Your task to perform on an android device: Search for Mexican restaurants on Maps Image 0: 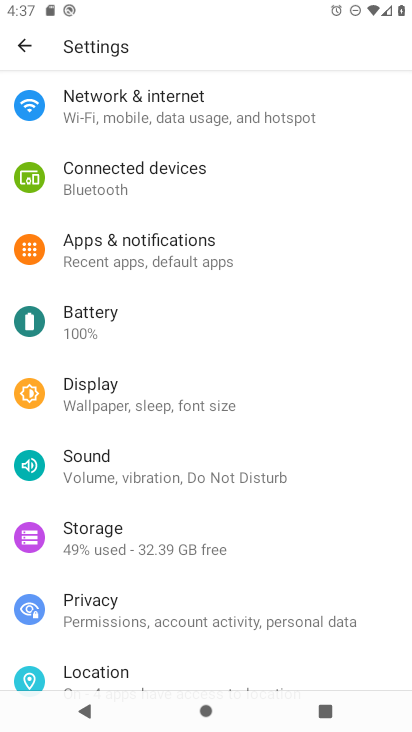
Step 0: press home button
Your task to perform on an android device: Search for Mexican restaurants on Maps Image 1: 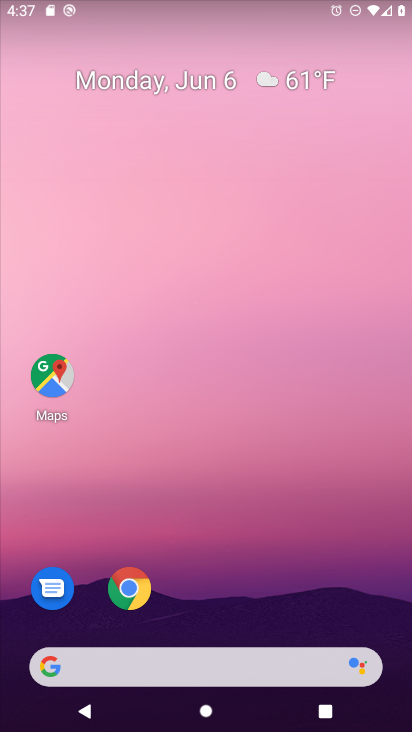
Step 1: drag from (204, 499) to (168, 188)
Your task to perform on an android device: Search for Mexican restaurants on Maps Image 2: 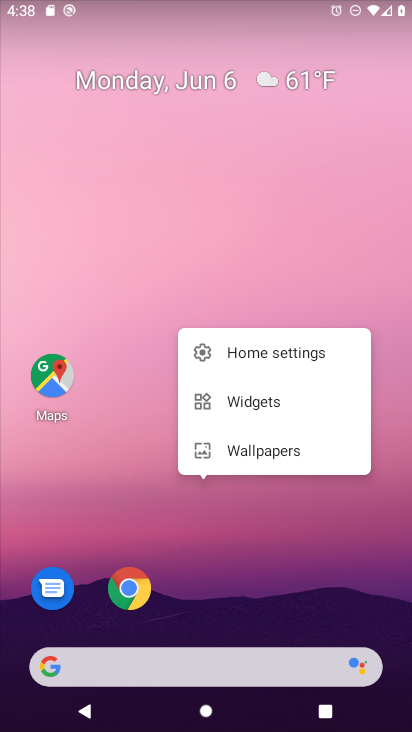
Step 2: click (62, 396)
Your task to perform on an android device: Search for Mexican restaurants on Maps Image 3: 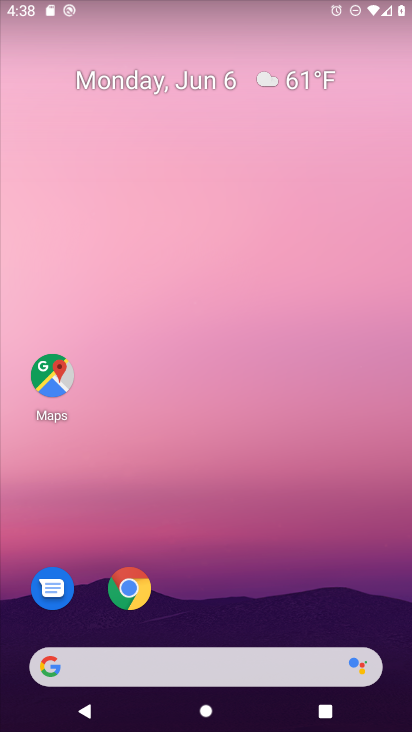
Step 3: click (67, 372)
Your task to perform on an android device: Search for Mexican restaurants on Maps Image 4: 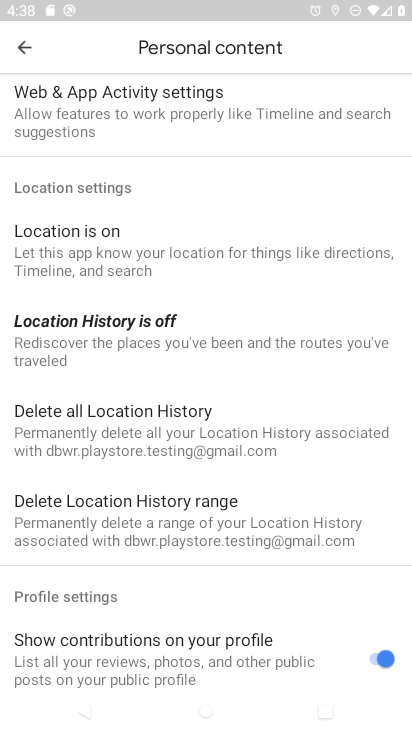
Step 4: click (28, 68)
Your task to perform on an android device: Search for Mexican restaurants on Maps Image 5: 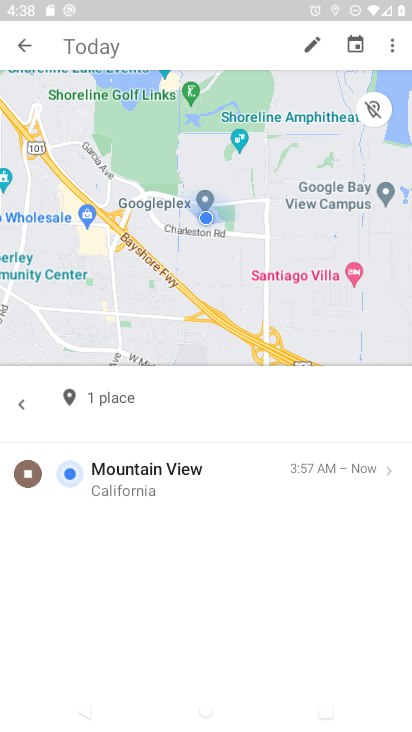
Step 5: click (30, 41)
Your task to perform on an android device: Search for Mexican restaurants on Maps Image 6: 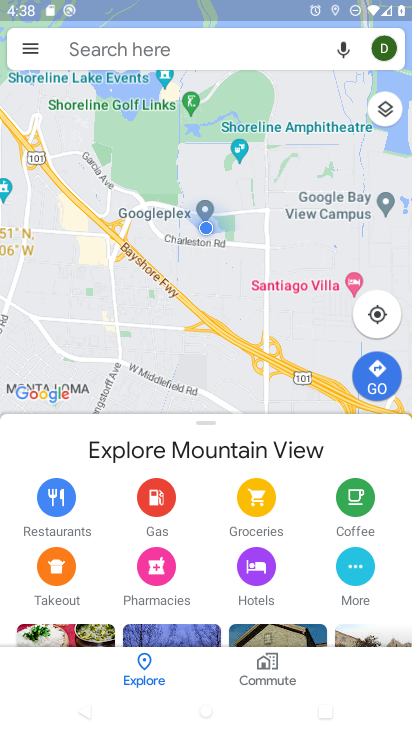
Step 6: click (127, 41)
Your task to perform on an android device: Search for Mexican restaurants on Maps Image 7: 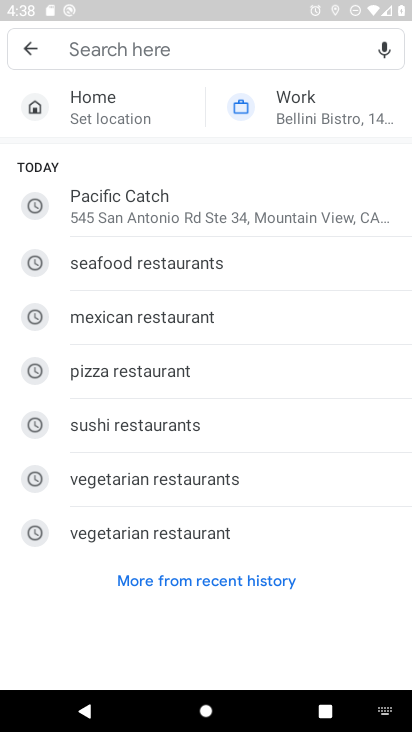
Step 7: click (173, 326)
Your task to perform on an android device: Search for Mexican restaurants on Maps Image 8: 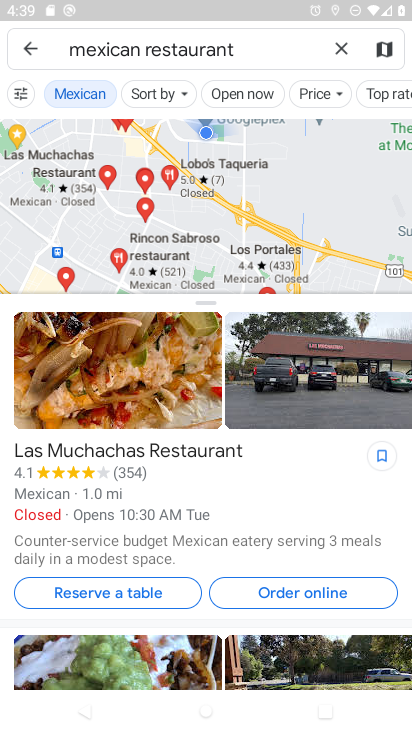
Step 8: task complete